Your task to perform on an android device: Open calendar and show me the first week of next month Image 0: 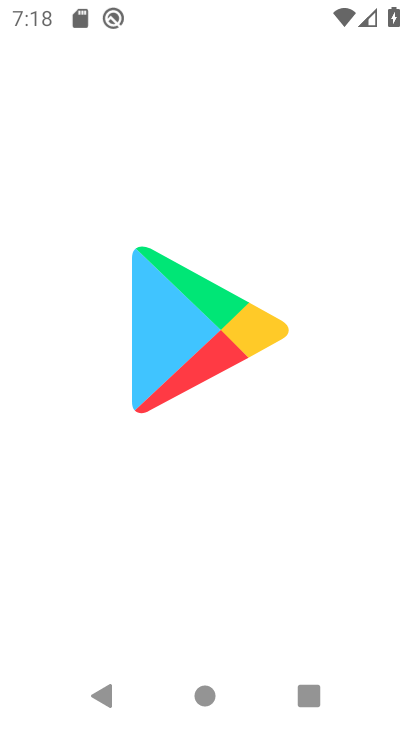
Step 0: drag from (356, 511) to (242, 115)
Your task to perform on an android device: Open calendar and show me the first week of next month Image 1: 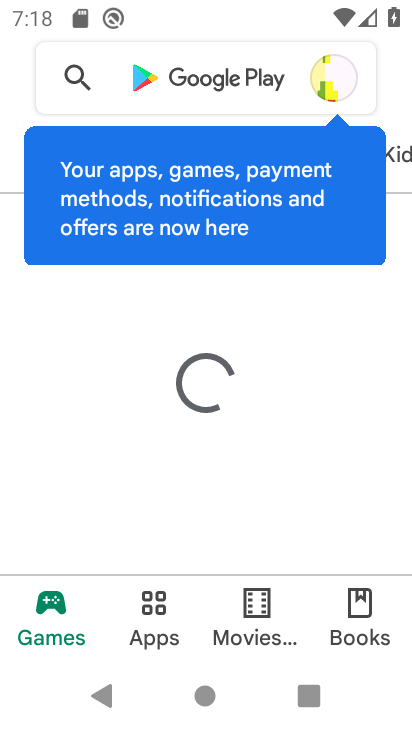
Step 1: press home button
Your task to perform on an android device: Open calendar and show me the first week of next month Image 2: 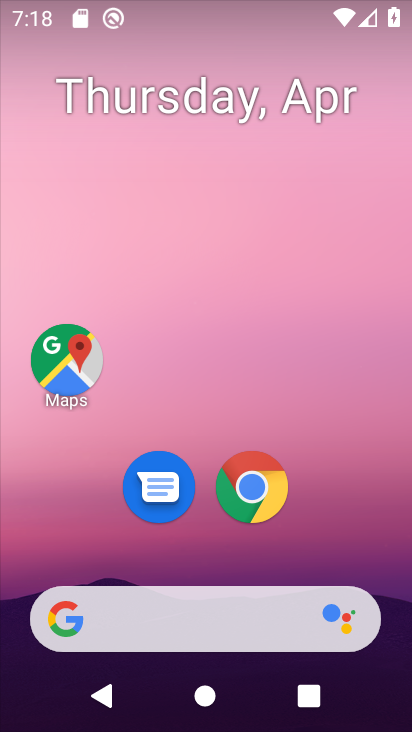
Step 2: drag from (356, 542) to (271, 8)
Your task to perform on an android device: Open calendar and show me the first week of next month Image 3: 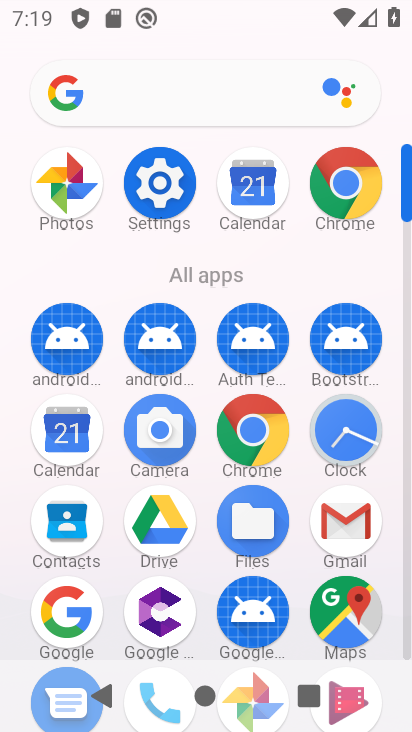
Step 3: click (69, 421)
Your task to perform on an android device: Open calendar and show me the first week of next month Image 4: 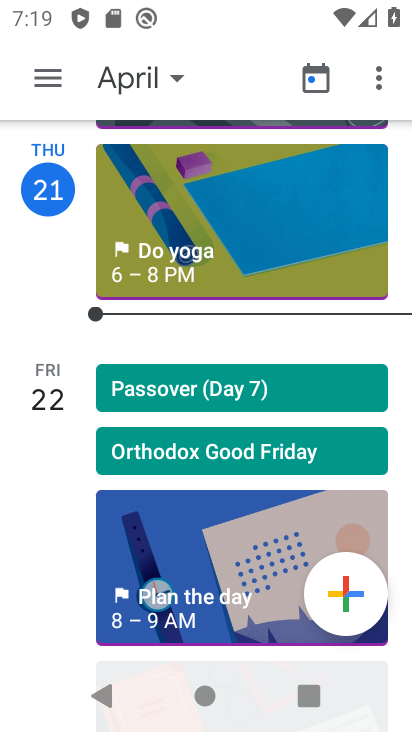
Step 4: click (108, 73)
Your task to perform on an android device: Open calendar and show me the first week of next month Image 5: 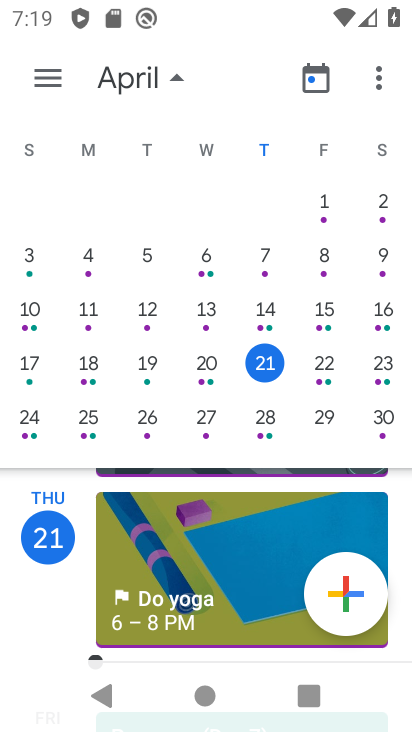
Step 5: drag from (357, 321) to (22, 268)
Your task to perform on an android device: Open calendar and show me the first week of next month Image 6: 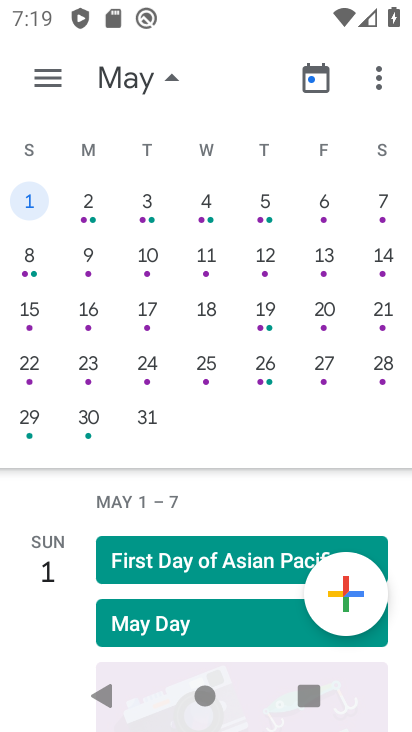
Step 6: click (207, 205)
Your task to perform on an android device: Open calendar and show me the first week of next month Image 7: 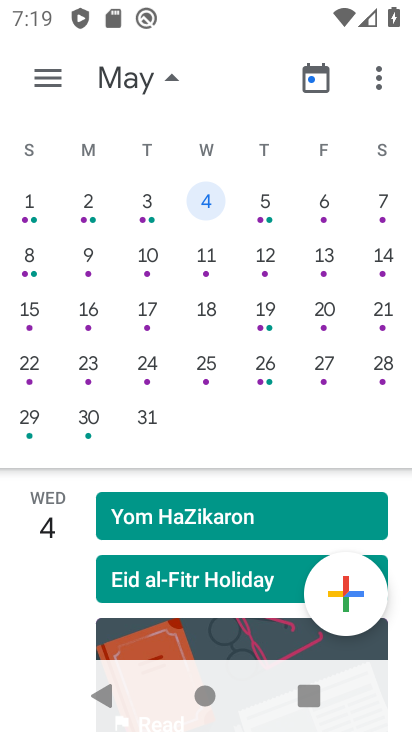
Step 7: task complete